Your task to perform on an android device: What's on my calendar tomorrow? Image 0: 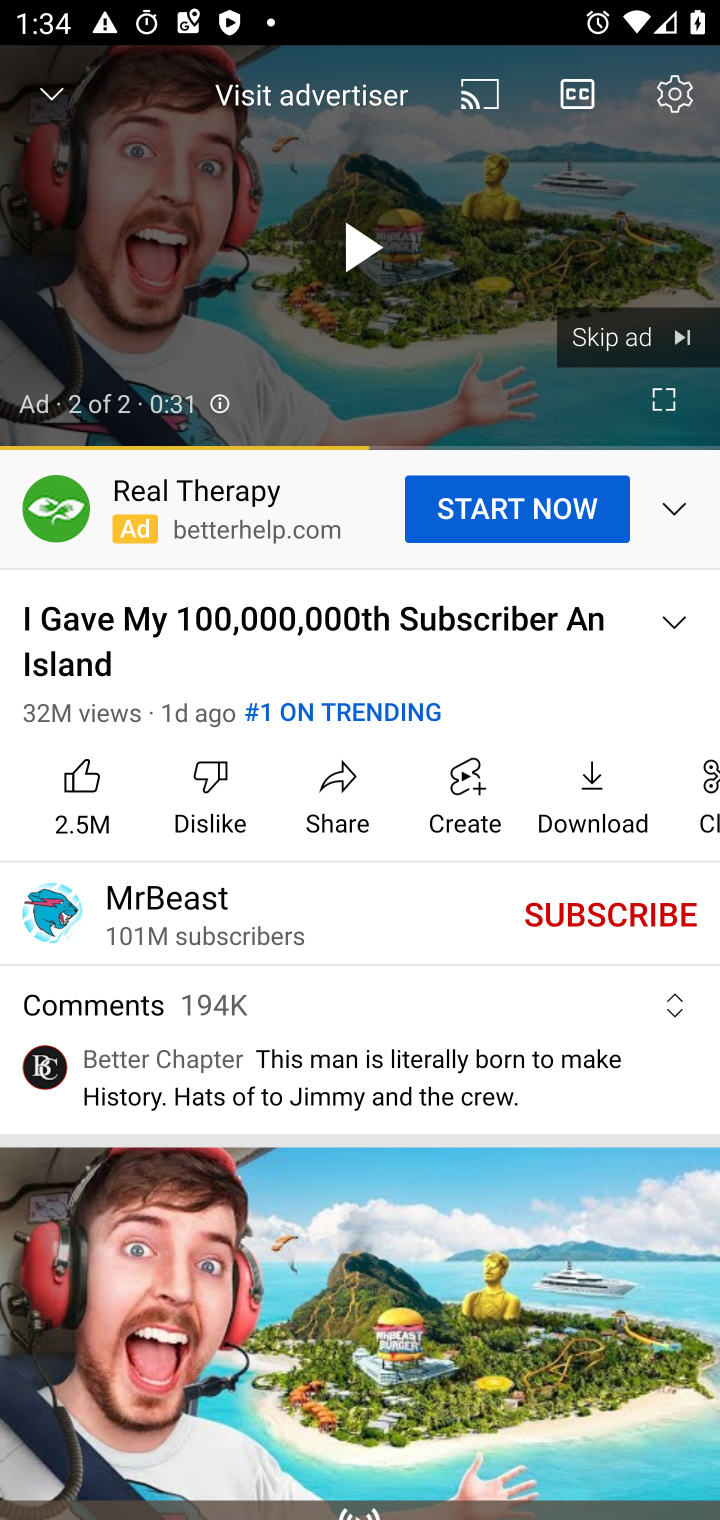
Step 0: press home button
Your task to perform on an android device: What's on my calendar tomorrow? Image 1: 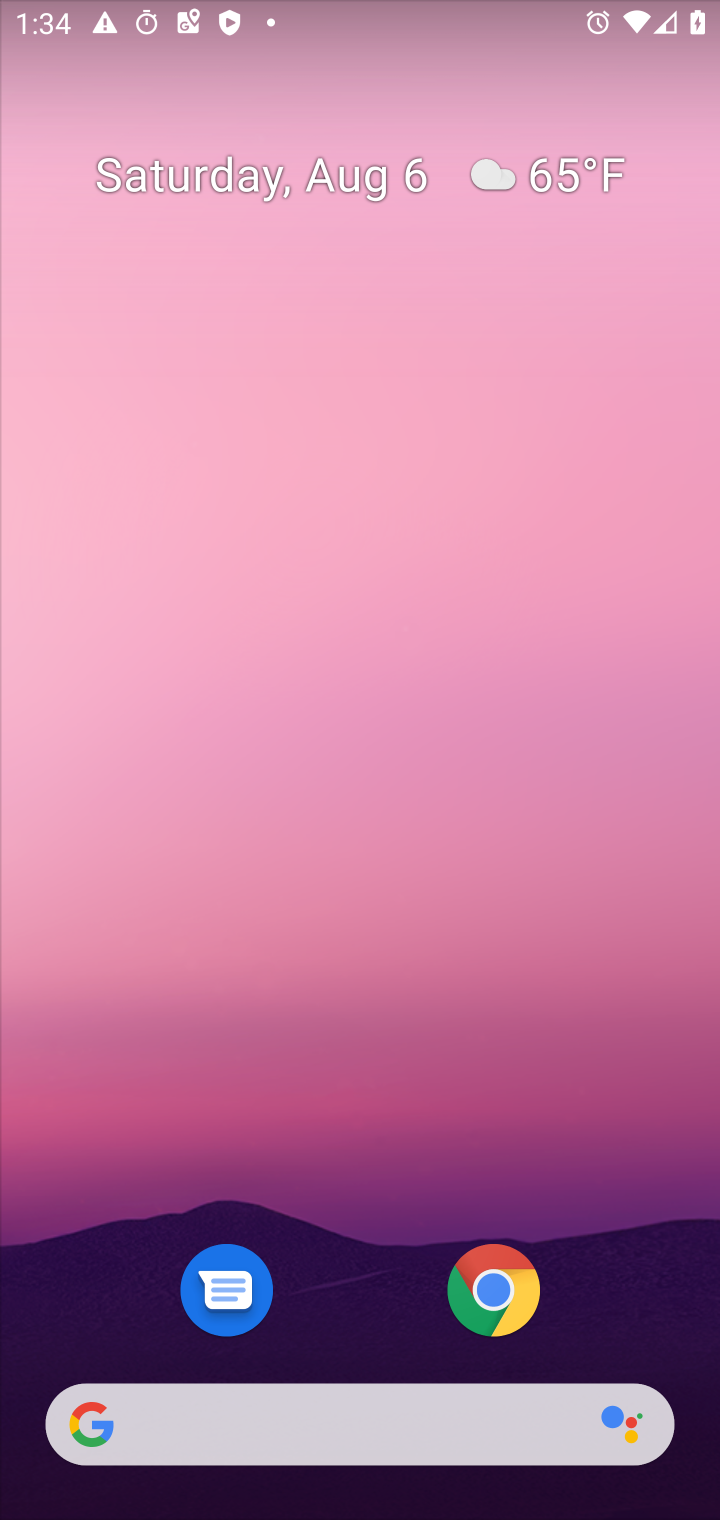
Step 1: drag from (352, 1331) to (517, 265)
Your task to perform on an android device: What's on my calendar tomorrow? Image 2: 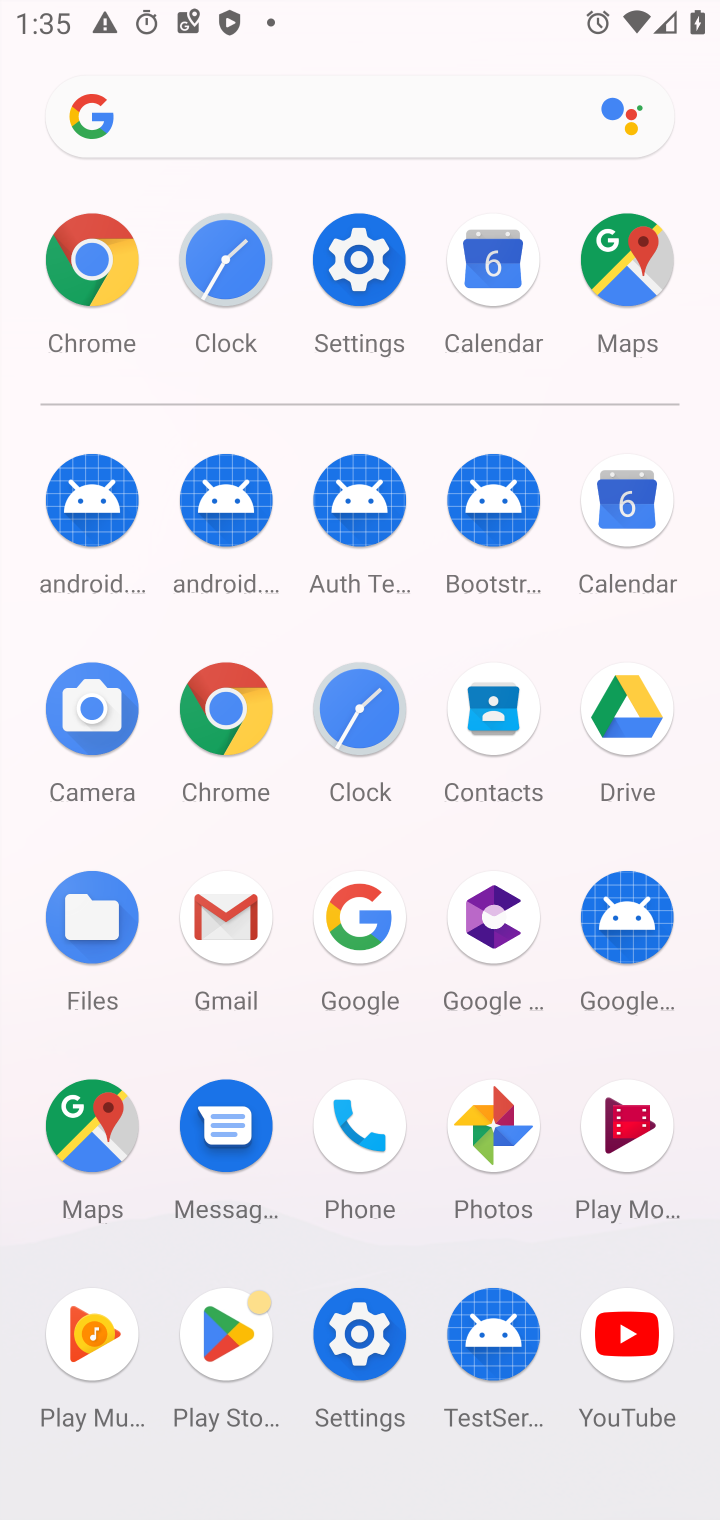
Step 2: click (619, 503)
Your task to perform on an android device: What's on my calendar tomorrow? Image 3: 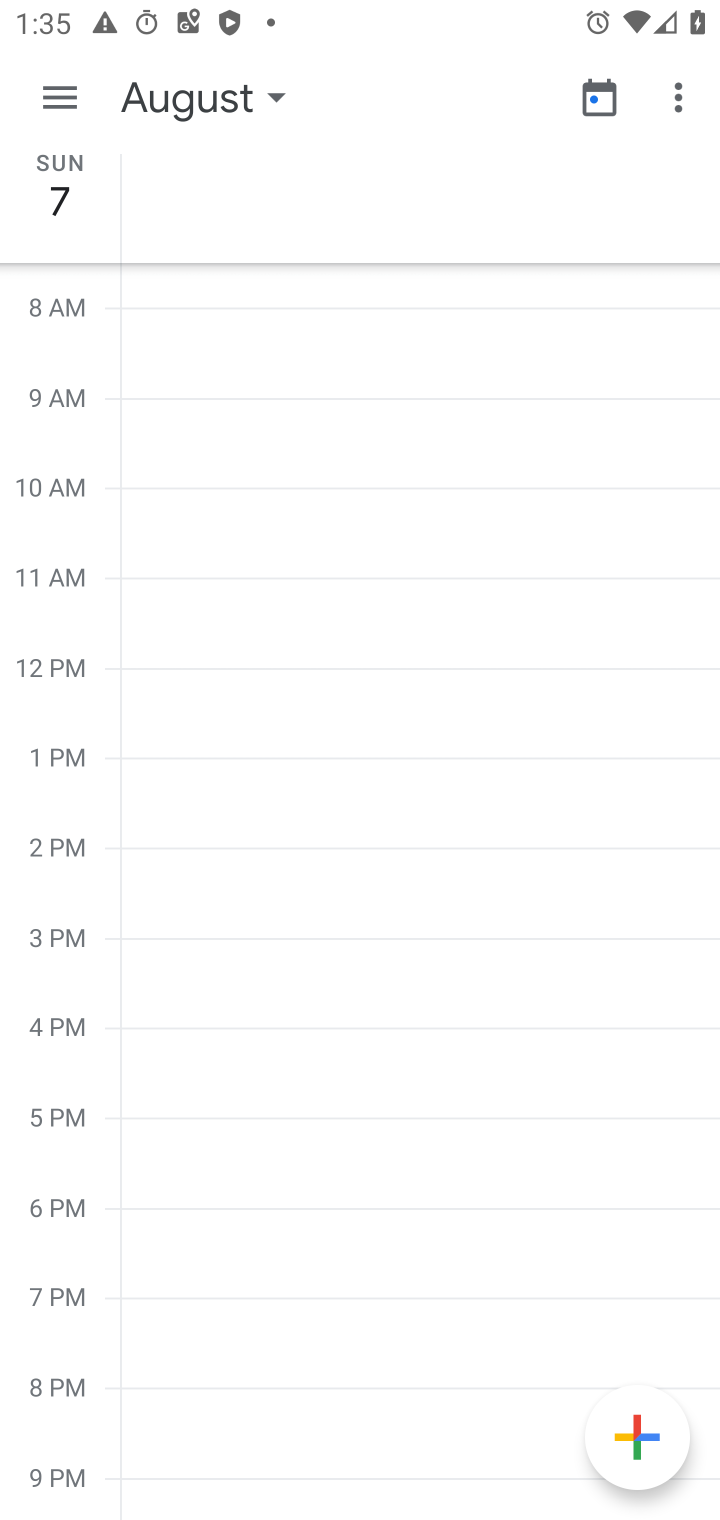
Step 3: task complete